Your task to perform on an android device: Open network settings Image 0: 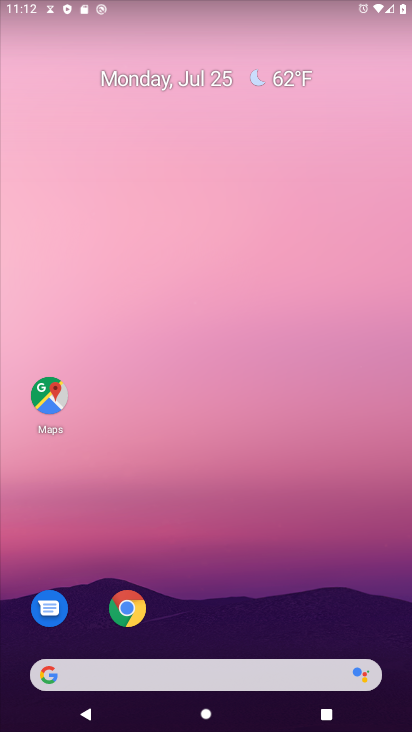
Step 0: drag from (148, 671) to (323, 23)
Your task to perform on an android device: Open network settings Image 1: 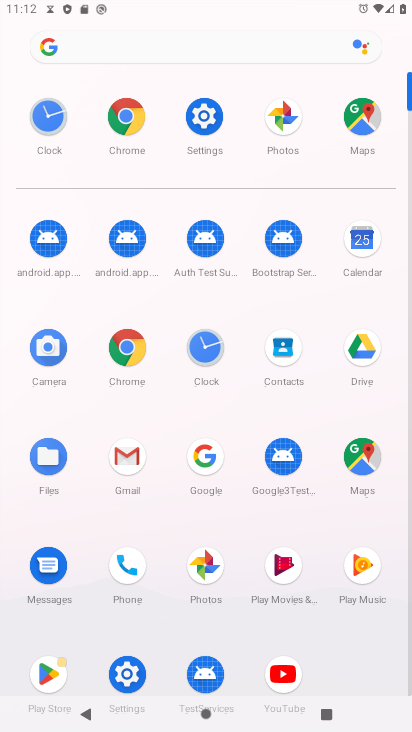
Step 1: click (321, 17)
Your task to perform on an android device: Open network settings Image 2: 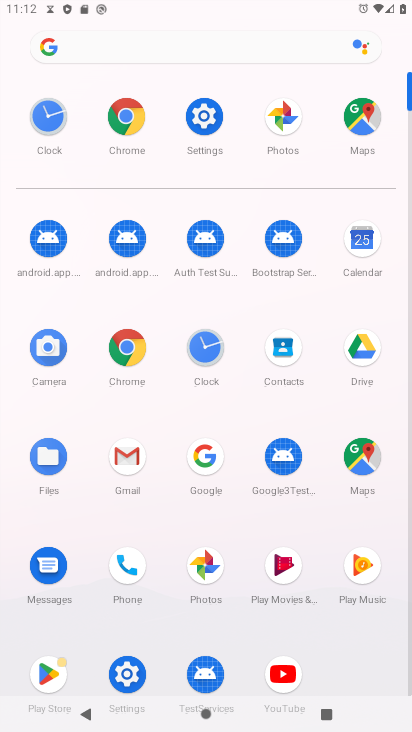
Step 2: click (203, 117)
Your task to perform on an android device: Open network settings Image 3: 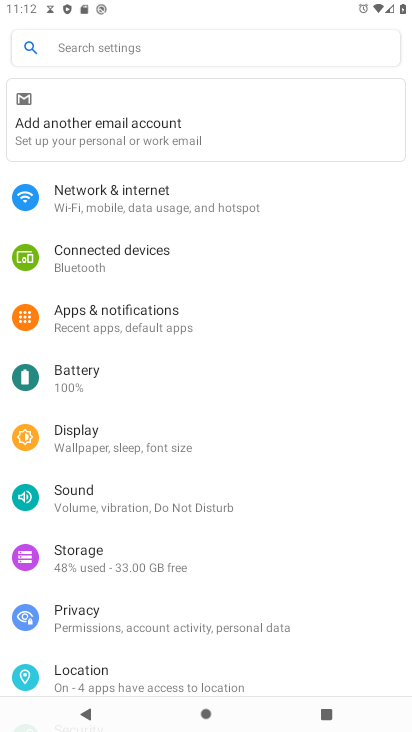
Step 3: click (184, 203)
Your task to perform on an android device: Open network settings Image 4: 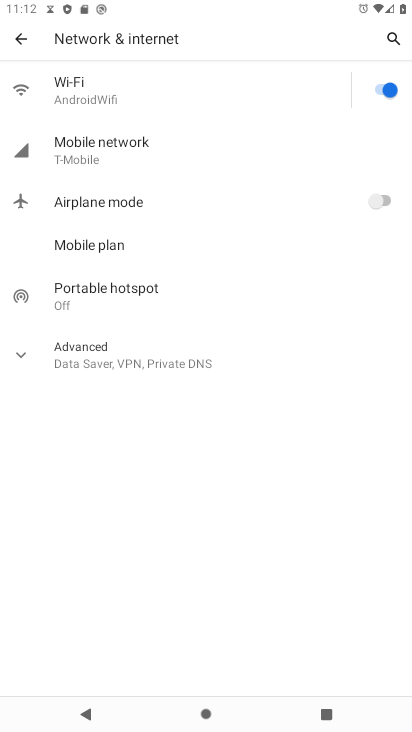
Step 4: task complete